Your task to perform on an android device: Open calendar and show me the fourth week of next month Image 0: 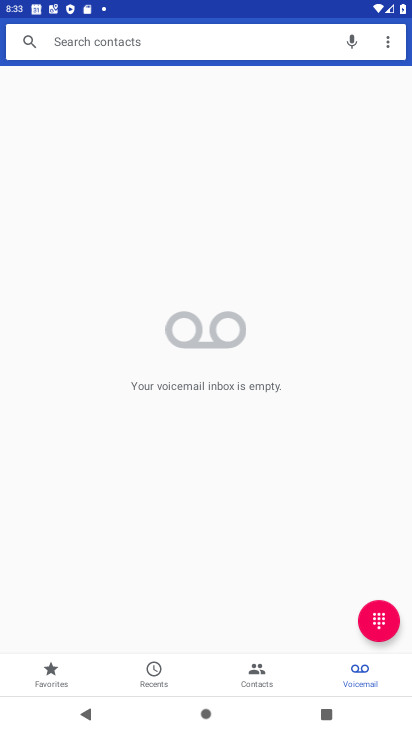
Step 0: press home button
Your task to perform on an android device: Open calendar and show me the fourth week of next month Image 1: 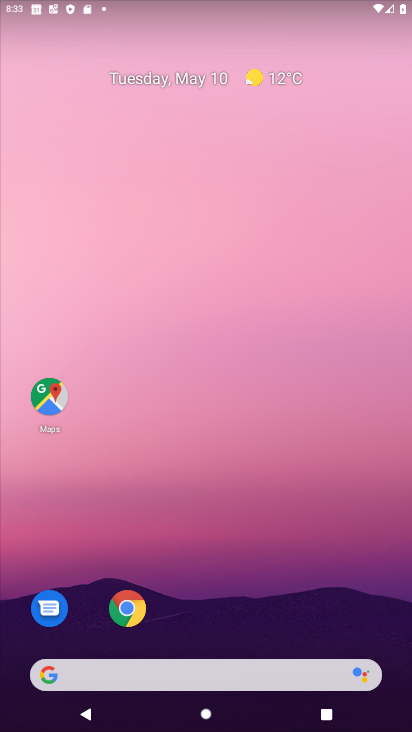
Step 1: drag from (205, 664) to (218, 197)
Your task to perform on an android device: Open calendar and show me the fourth week of next month Image 2: 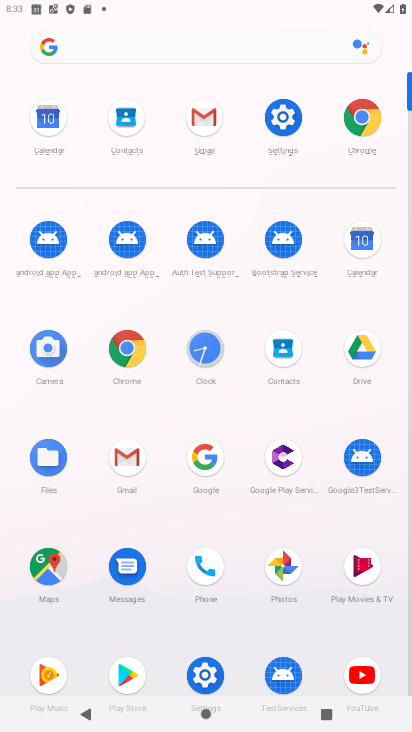
Step 2: click (363, 253)
Your task to perform on an android device: Open calendar and show me the fourth week of next month Image 3: 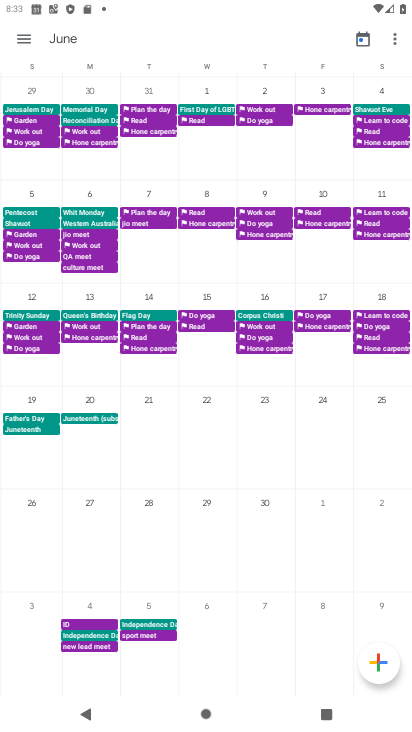
Step 3: task complete